Your task to perform on an android device: What's the weather today? Image 0: 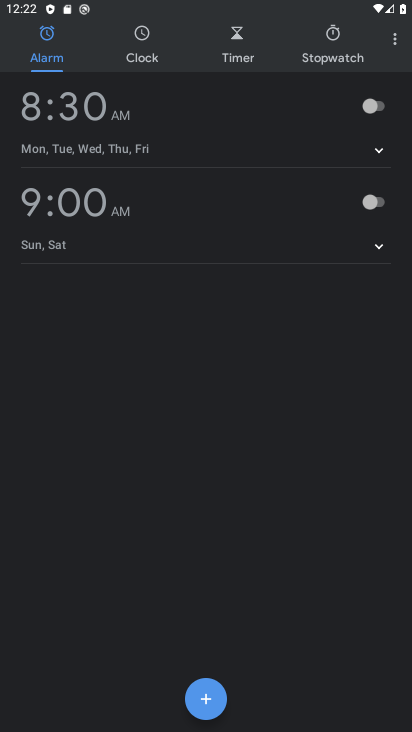
Step 0: press home button
Your task to perform on an android device: What's the weather today? Image 1: 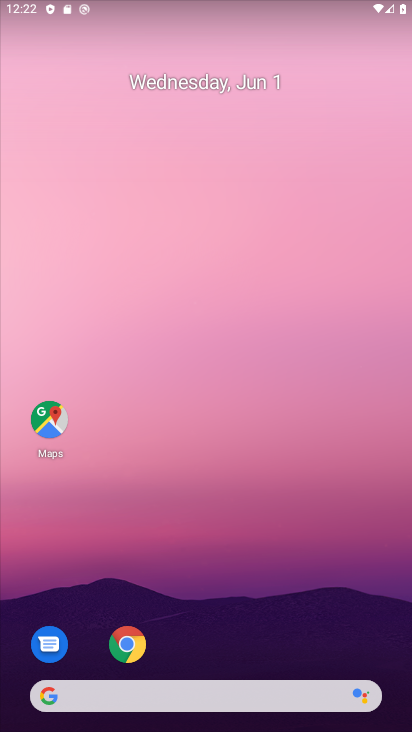
Step 1: click (142, 644)
Your task to perform on an android device: What's the weather today? Image 2: 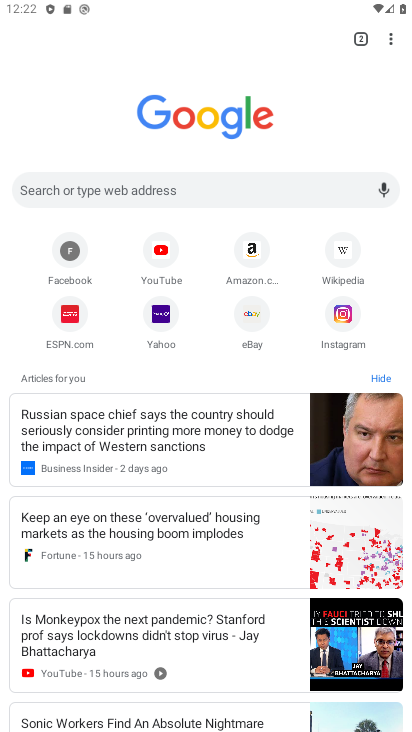
Step 2: click (277, 182)
Your task to perform on an android device: What's the weather today? Image 3: 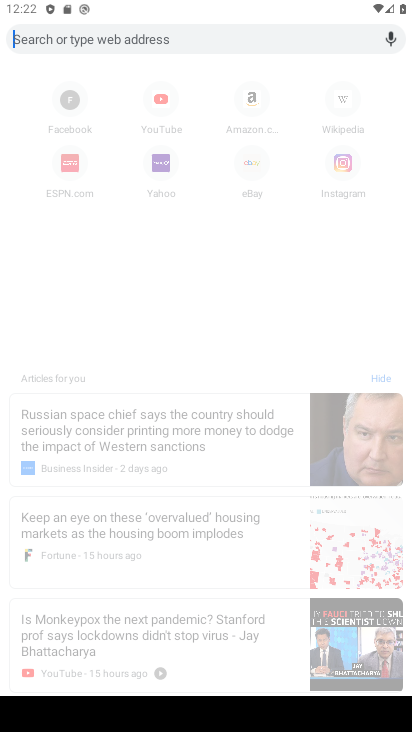
Step 3: type "What's the weather today?"
Your task to perform on an android device: What's the weather today? Image 4: 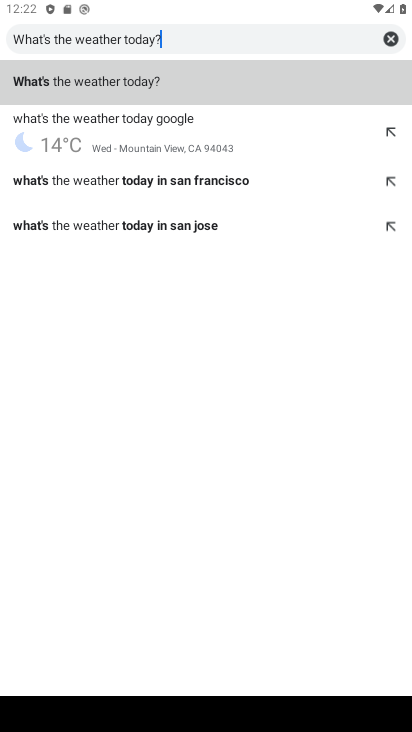
Step 4: click (14, 76)
Your task to perform on an android device: What's the weather today? Image 5: 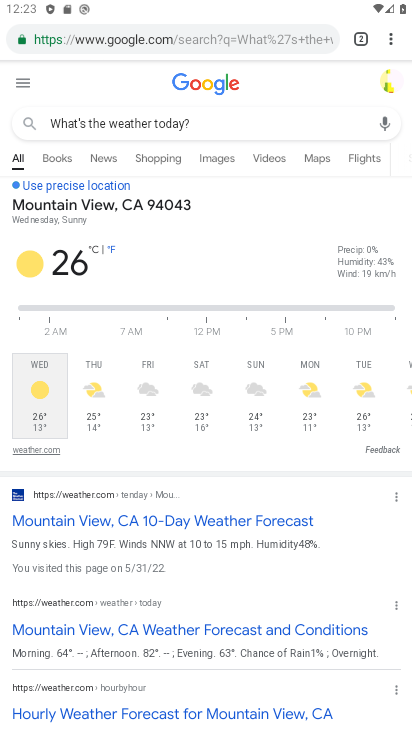
Step 5: task complete